Your task to perform on an android device: toggle javascript in the chrome app Image 0: 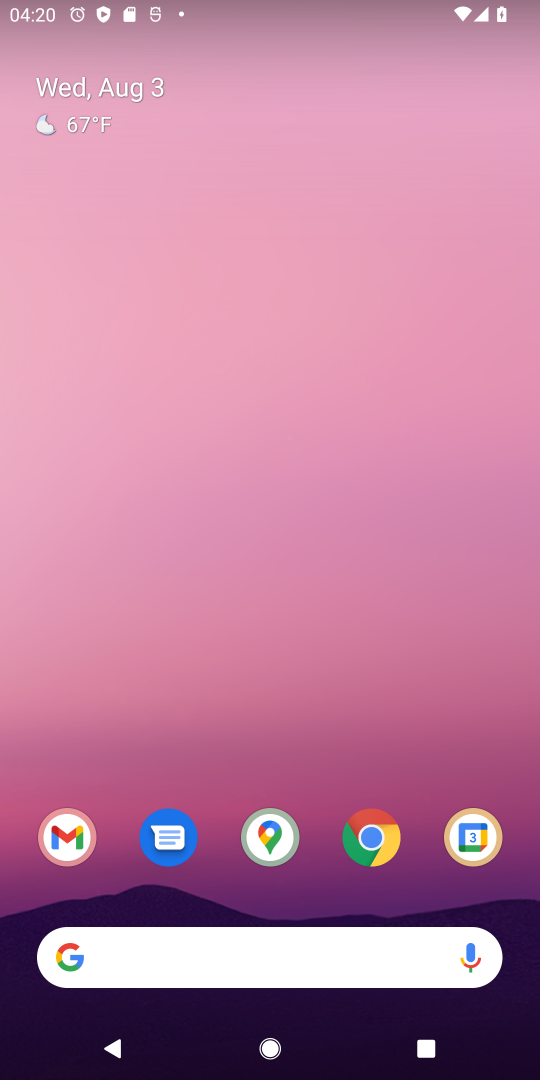
Step 0: click (372, 834)
Your task to perform on an android device: toggle javascript in the chrome app Image 1: 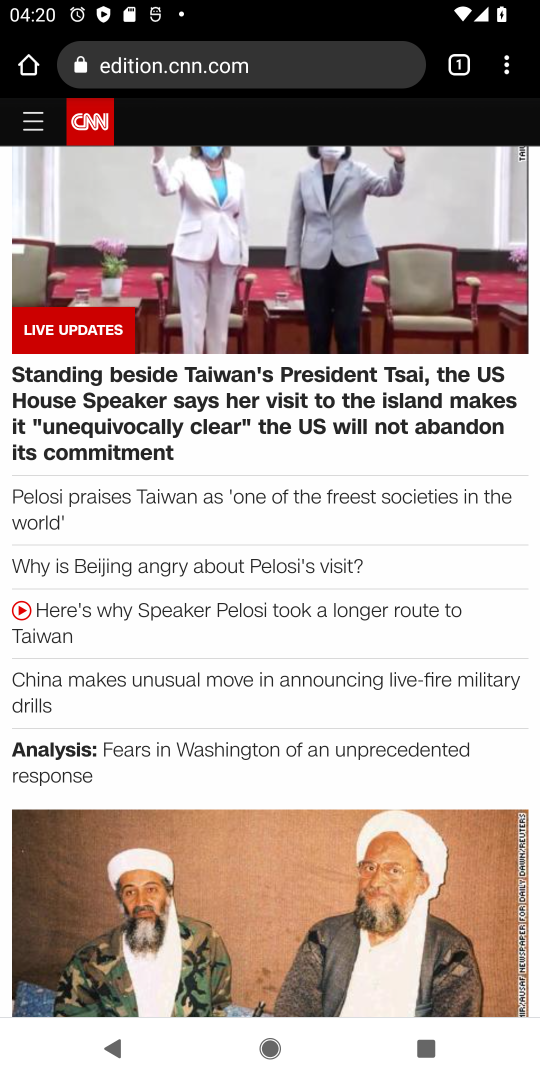
Step 1: click (504, 78)
Your task to perform on an android device: toggle javascript in the chrome app Image 2: 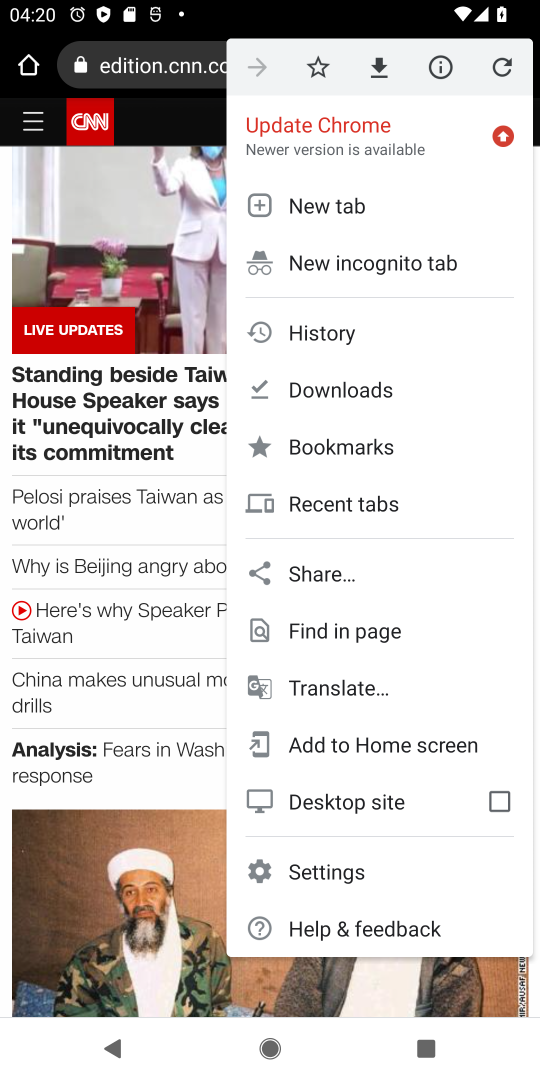
Step 2: click (315, 870)
Your task to perform on an android device: toggle javascript in the chrome app Image 3: 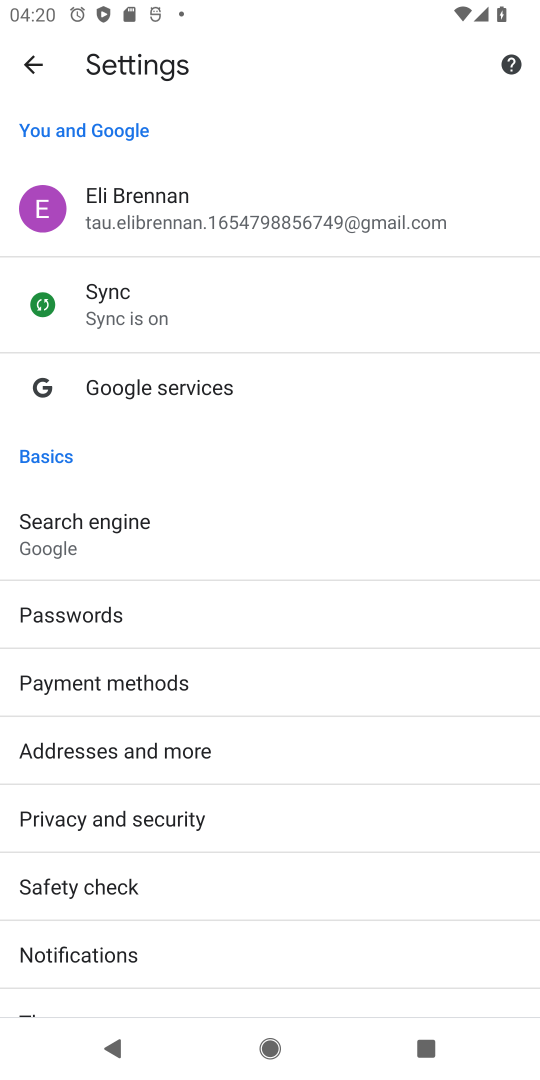
Step 3: drag from (277, 934) to (304, 395)
Your task to perform on an android device: toggle javascript in the chrome app Image 4: 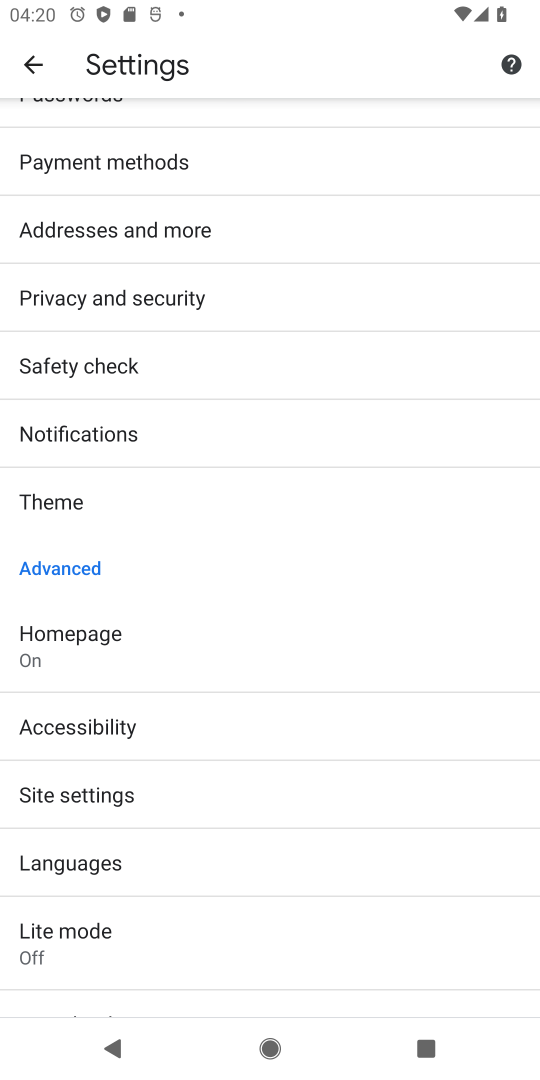
Step 4: click (85, 805)
Your task to perform on an android device: toggle javascript in the chrome app Image 5: 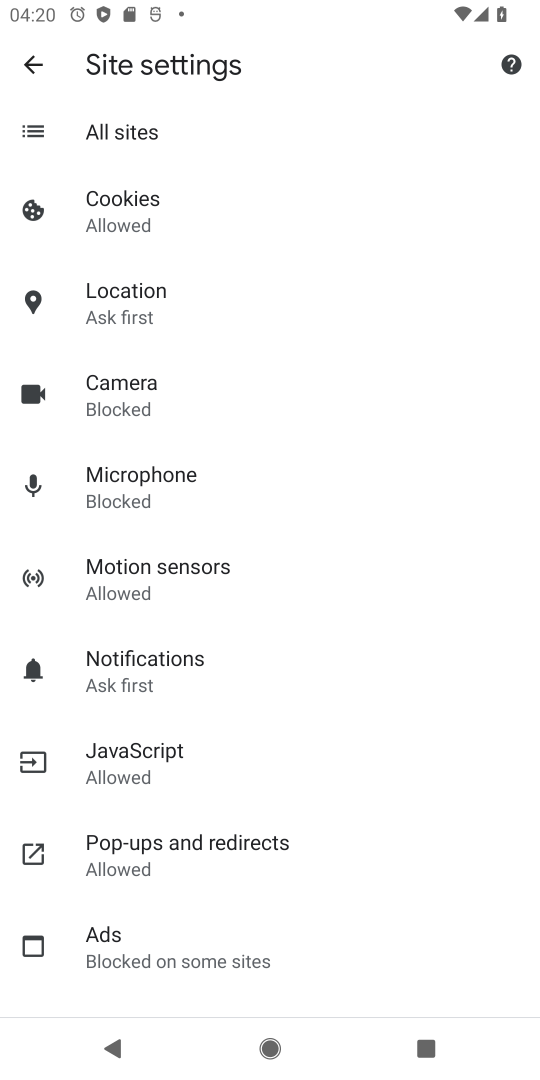
Step 5: click (110, 755)
Your task to perform on an android device: toggle javascript in the chrome app Image 6: 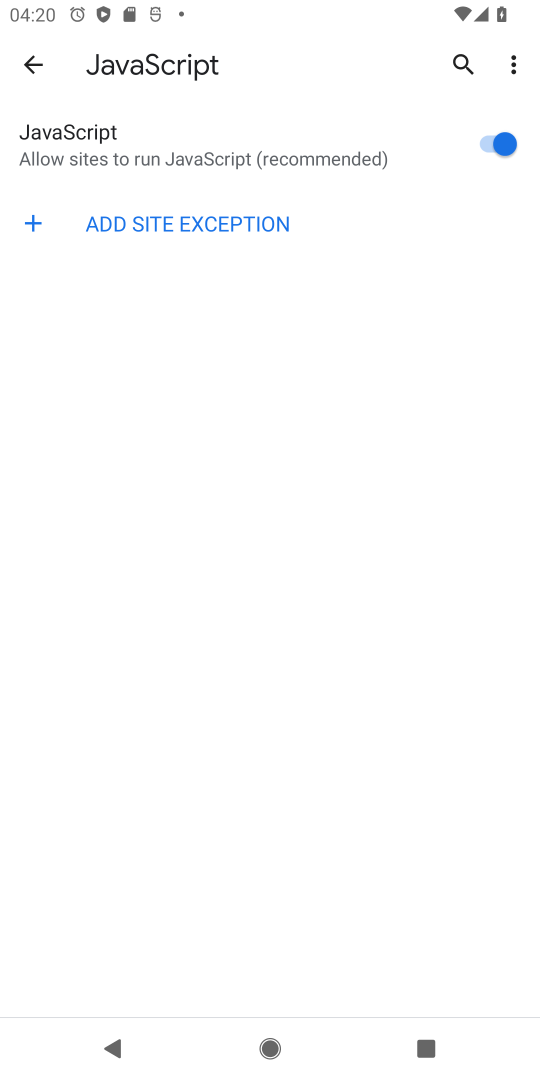
Step 6: click (487, 144)
Your task to perform on an android device: toggle javascript in the chrome app Image 7: 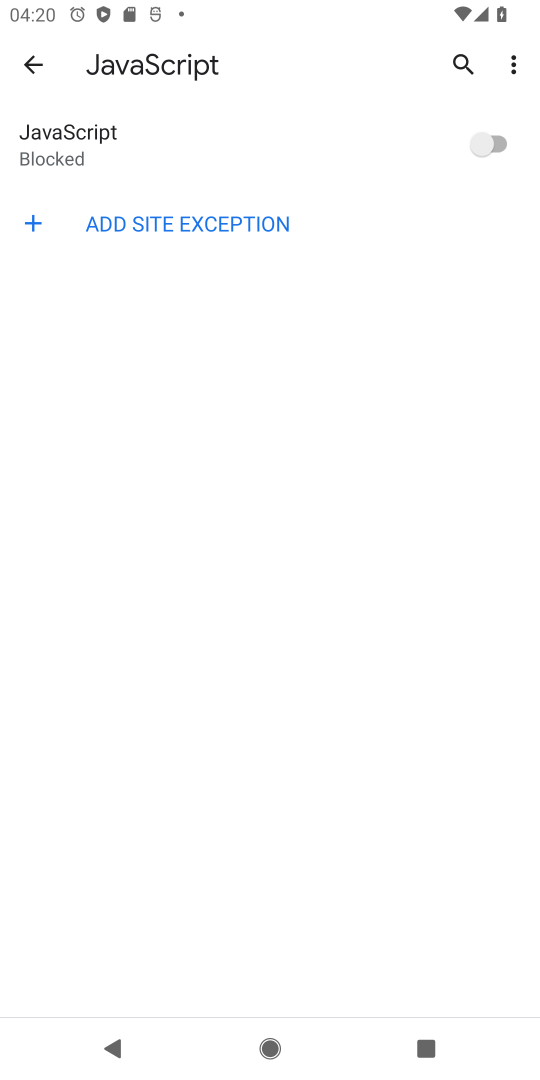
Step 7: task complete